Your task to perform on an android device: Open the phone app and click the voicemail tab. Image 0: 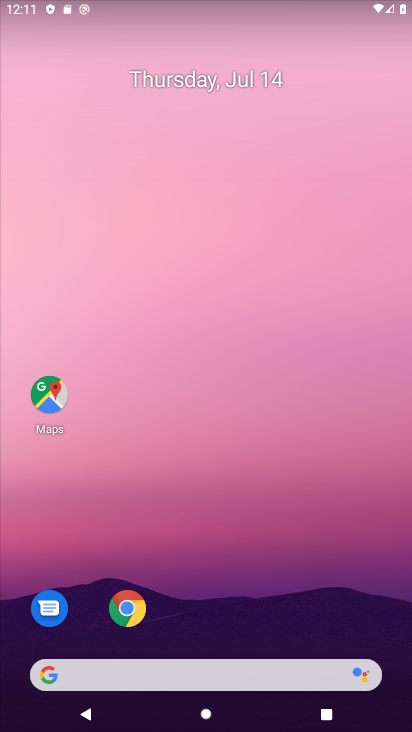
Step 0: drag from (285, 583) to (183, 31)
Your task to perform on an android device: Open the phone app and click the voicemail tab. Image 1: 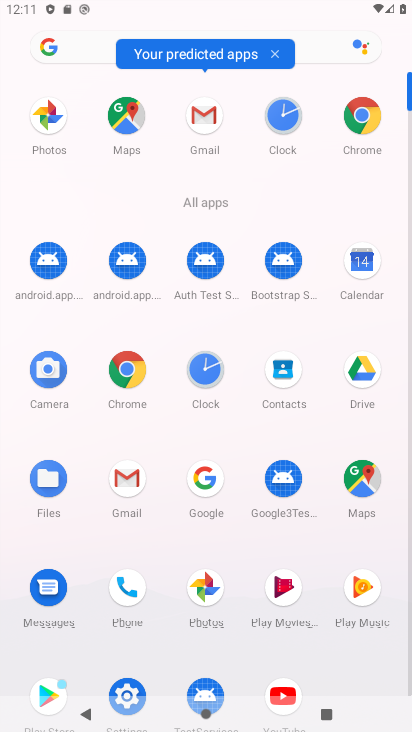
Step 1: click (206, 591)
Your task to perform on an android device: Open the phone app and click the voicemail tab. Image 2: 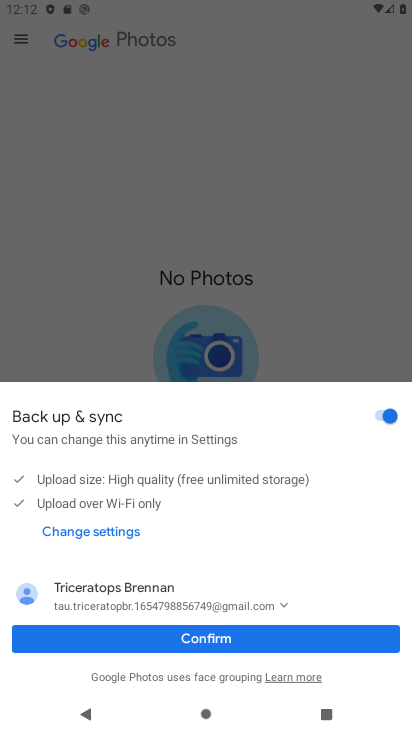
Step 2: click (221, 645)
Your task to perform on an android device: Open the phone app and click the voicemail tab. Image 3: 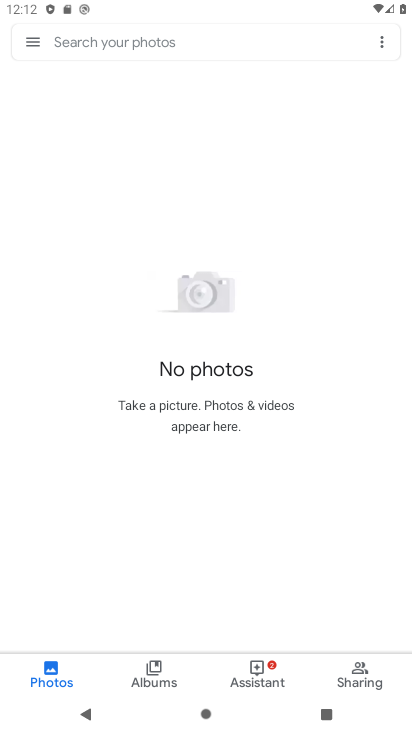
Step 3: press home button
Your task to perform on an android device: Open the phone app and click the voicemail tab. Image 4: 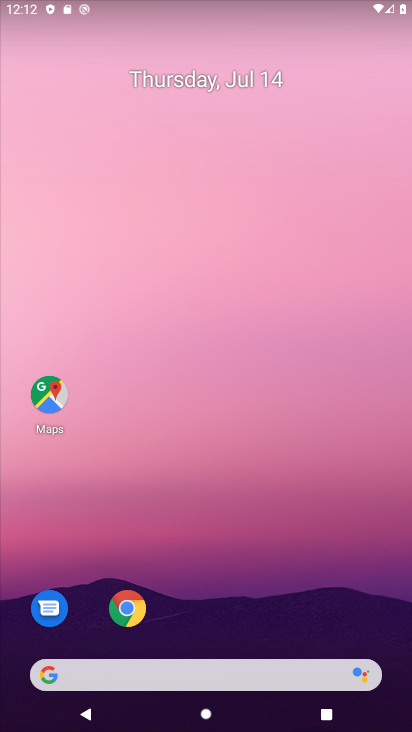
Step 4: drag from (297, 568) to (300, 9)
Your task to perform on an android device: Open the phone app and click the voicemail tab. Image 5: 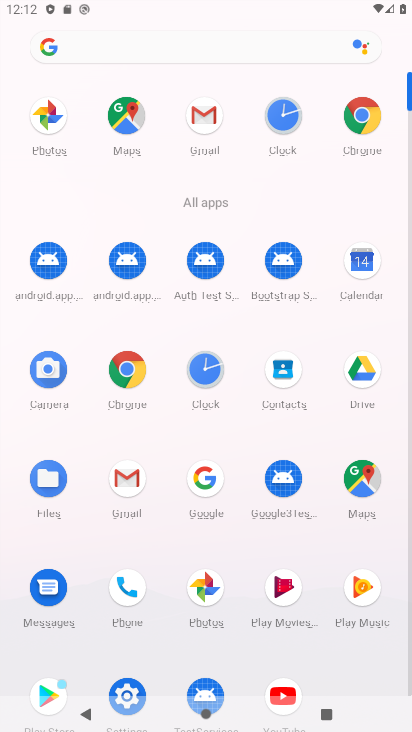
Step 5: click (118, 581)
Your task to perform on an android device: Open the phone app and click the voicemail tab. Image 6: 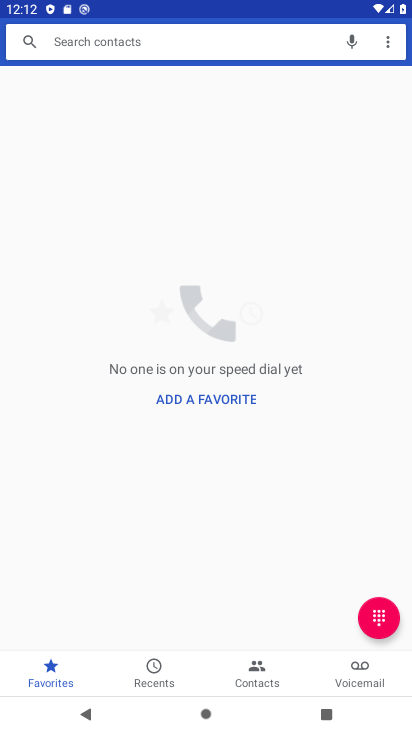
Step 6: click (367, 671)
Your task to perform on an android device: Open the phone app and click the voicemail tab. Image 7: 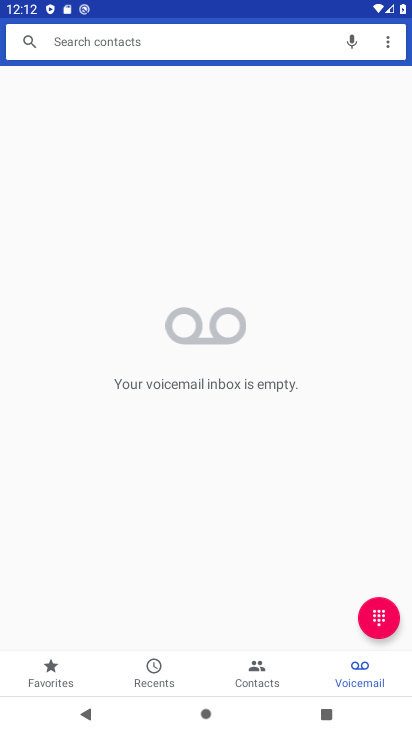
Step 7: task complete